Your task to perform on an android device: check android version Image 0: 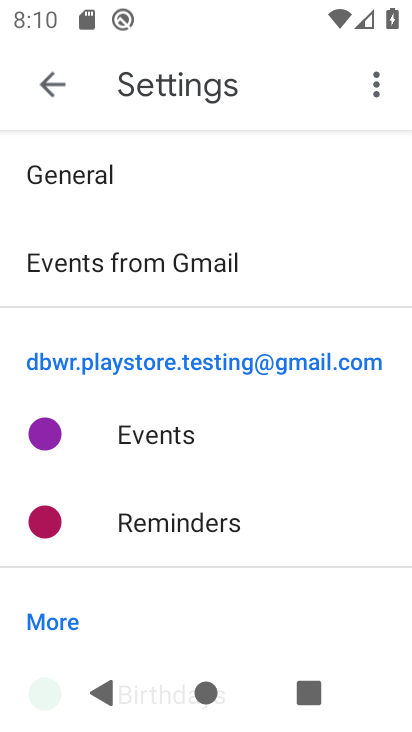
Step 0: press home button
Your task to perform on an android device: check android version Image 1: 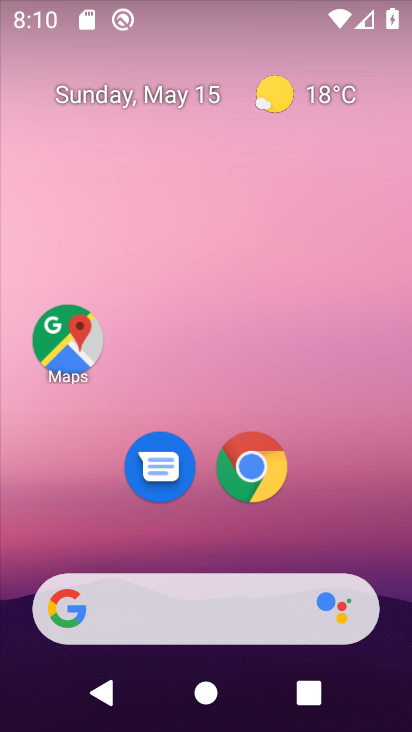
Step 1: drag from (209, 549) to (283, 64)
Your task to perform on an android device: check android version Image 2: 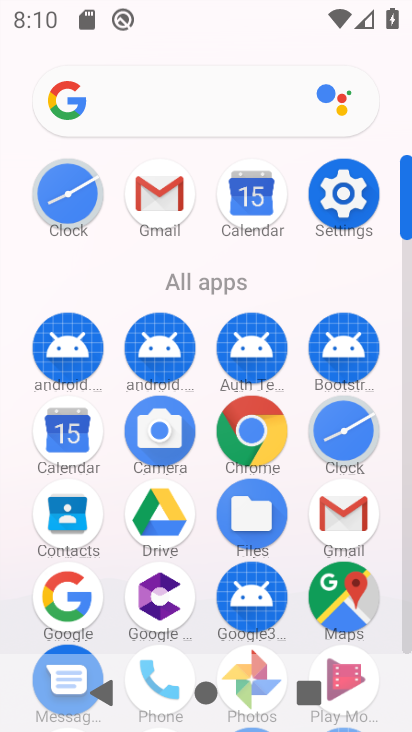
Step 2: click (329, 191)
Your task to perform on an android device: check android version Image 3: 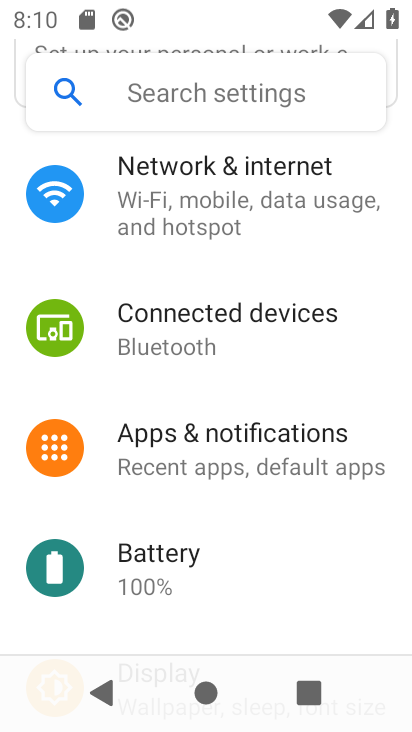
Step 3: drag from (150, 527) to (163, 151)
Your task to perform on an android device: check android version Image 4: 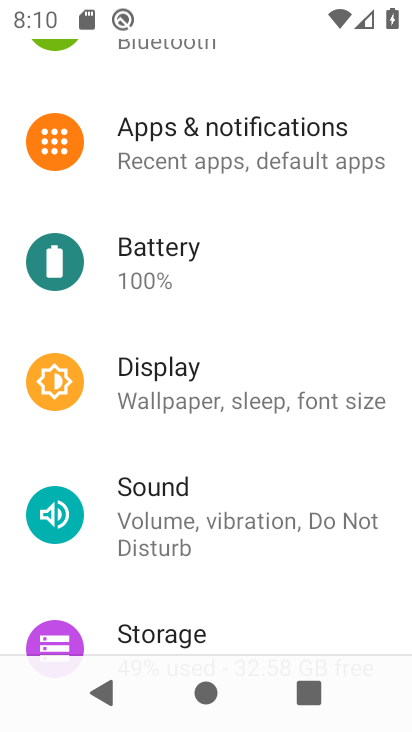
Step 4: drag from (183, 551) to (230, 110)
Your task to perform on an android device: check android version Image 5: 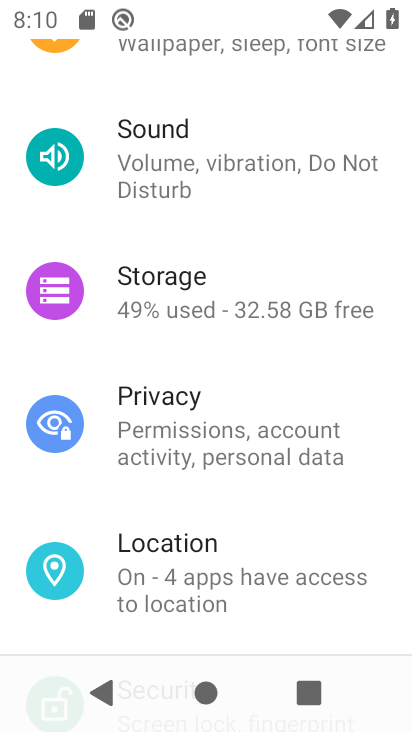
Step 5: drag from (255, 554) to (252, 98)
Your task to perform on an android device: check android version Image 6: 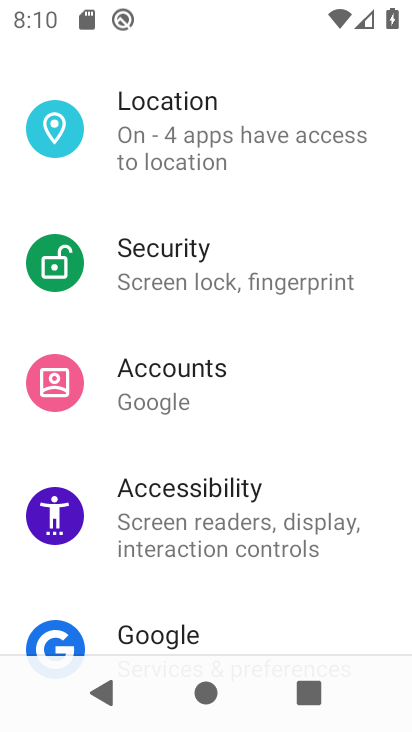
Step 6: drag from (234, 555) to (238, 201)
Your task to perform on an android device: check android version Image 7: 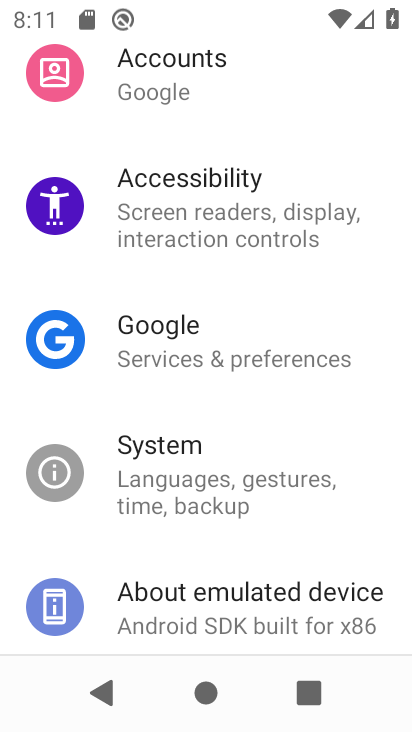
Step 7: click (222, 593)
Your task to perform on an android device: check android version Image 8: 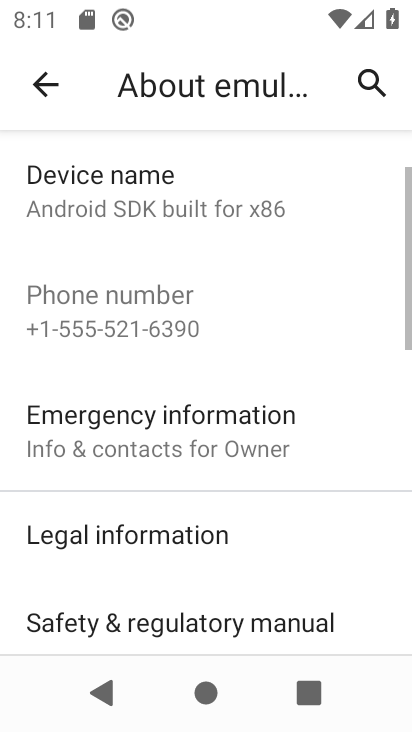
Step 8: drag from (206, 572) to (209, 205)
Your task to perform on an android device: check android version Image 9: 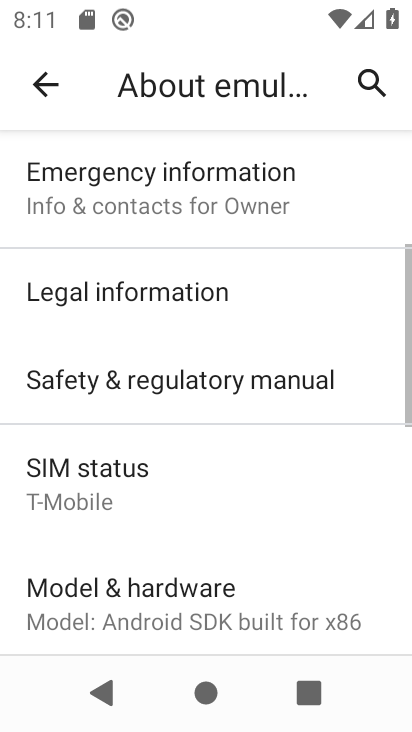
Step 9: drag from (243, 583) to (260, 261)
Your task to perform on an android device: check android version Image 10: 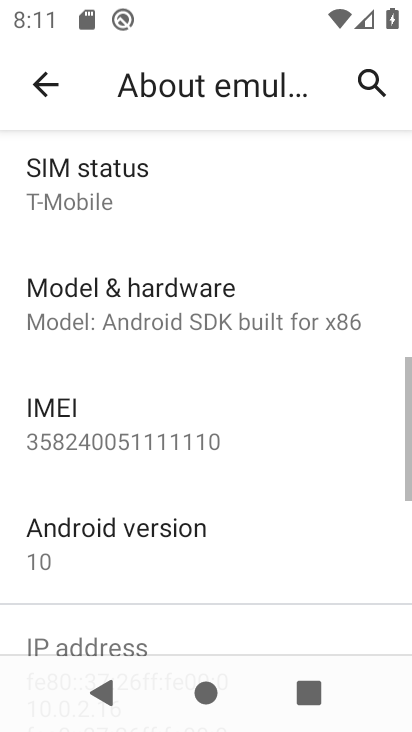
Step 10: click (196, 547)
Your task to perform on an android device: check android version Image 11: 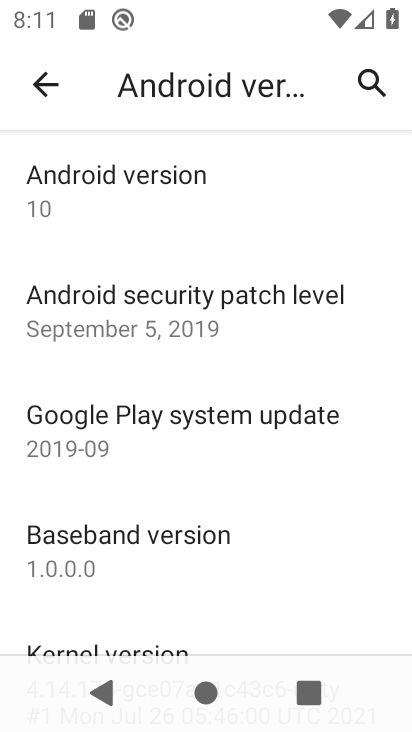
Step 11: click (174, 215)
Your task to perform on an android device: check android version Image 12: 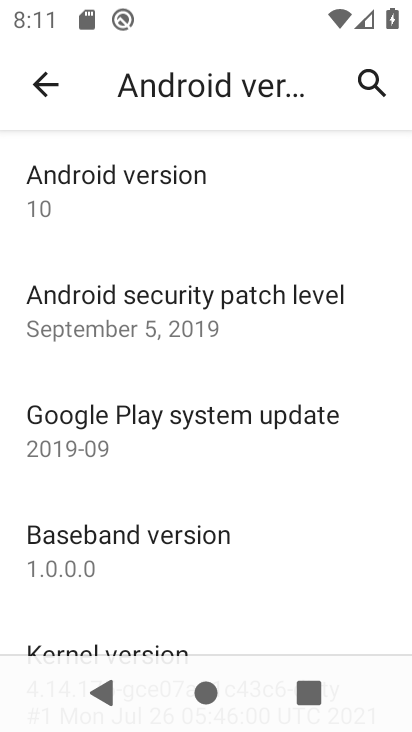
Step 12: task complete